Your task to perform on an android device: Open display settings Image 0: 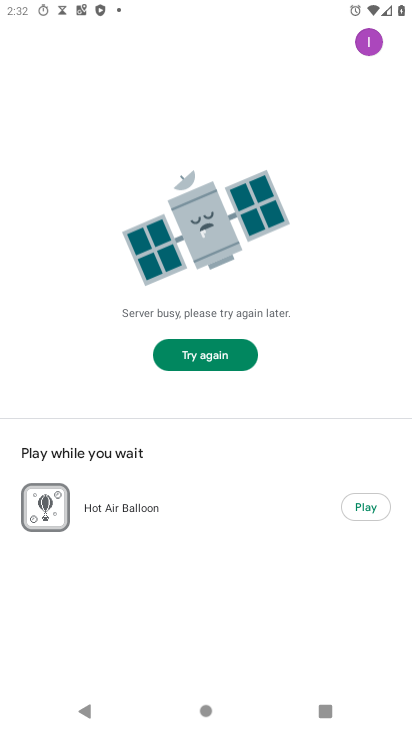
Step 0: press home button
Your task to perform on an android device: Open display settings Image 1: 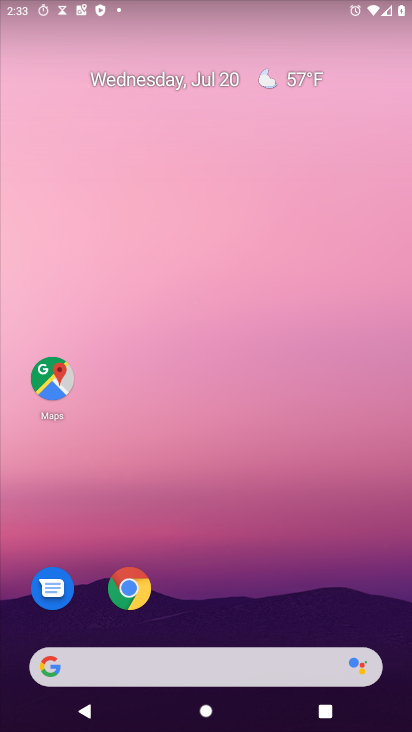
Step 1: drag from (186, 663) to (316, 7)
Your task to perform on an android device: Open display settings Image 2: 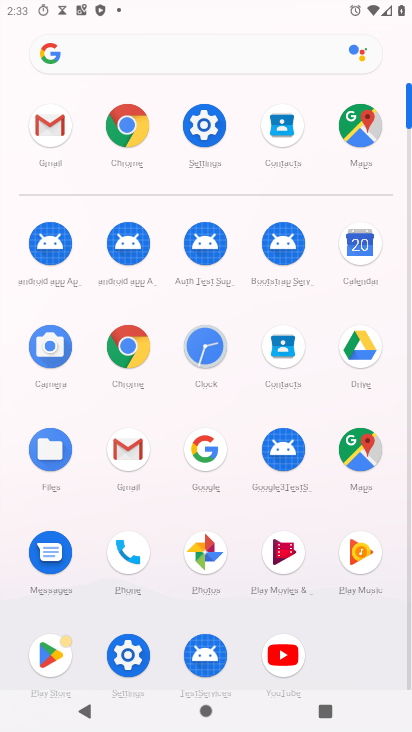
Step 2: click (203, 116)
Your task to perform on an android device: Open display settings Image 3: 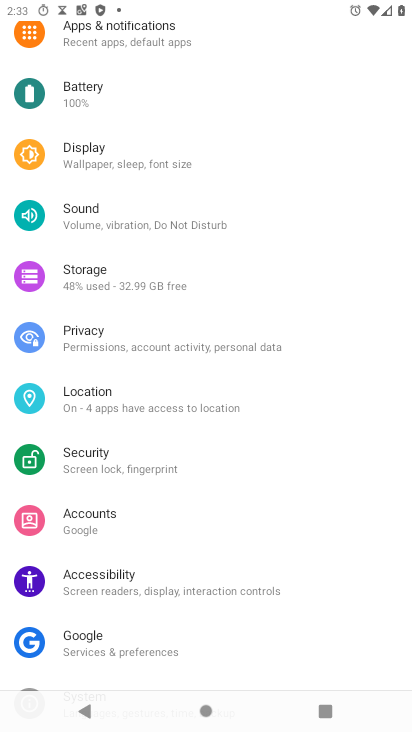
Step 3: drag from (148, 116) to (120, 440)
Your task to perform on an android device: Open display settings Image 4: 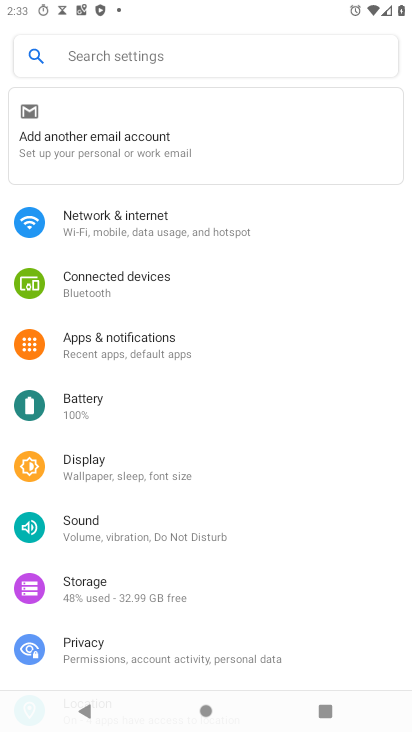
Step 4: click (89, 465)
Your task to perform on an android device: Open display settings Image 5: 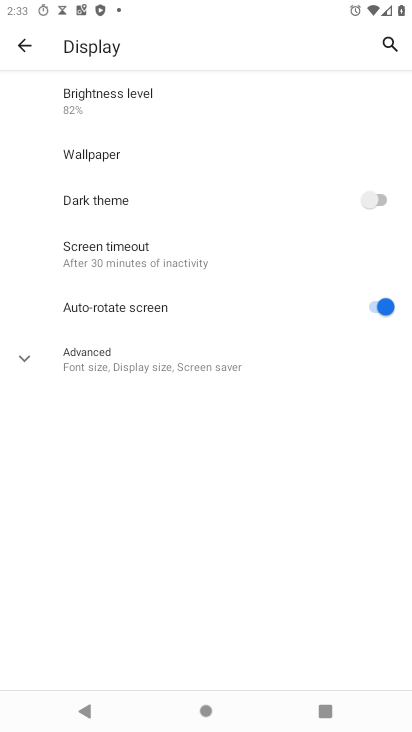
Step 5: task complete